Your task to perform on an android device: change your default location settings in chrome Image 0: 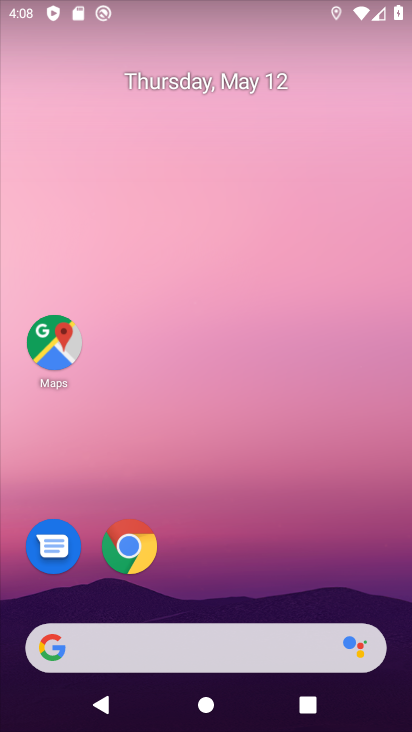
Step 0: drag from (280, 501) to (227, 0)
Your task to perform on an android device: change your default location settings in chrome Image 1: 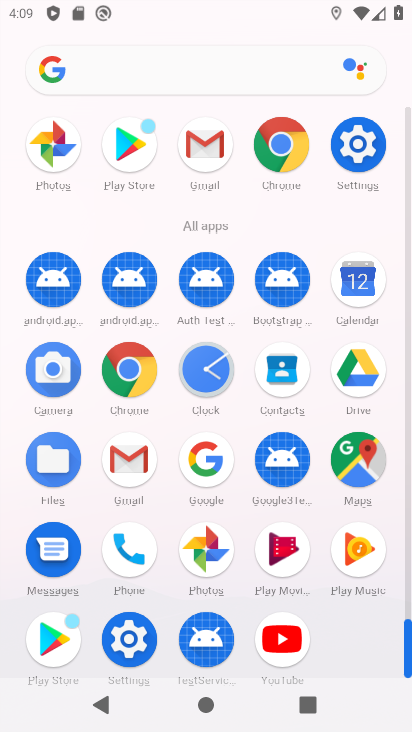
Step 1: click (280, 141)
Your task to perform on an android device: change your default location settings in chrome Image 2: 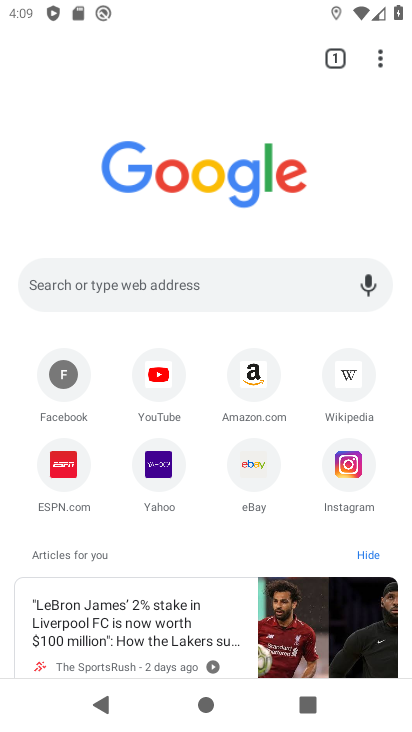
Step 2: drag from (378, 58) to (187, 482)
Your task to perform on an android device: change your default location settings in chrome Image 3: 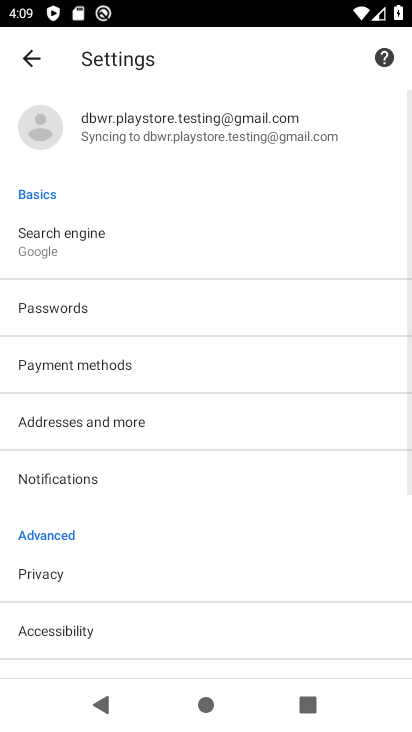
Step 3: drag from (183, 554) to (197, 167)
Your task to perform on an android device: change your default location settings in chrome Image 4: 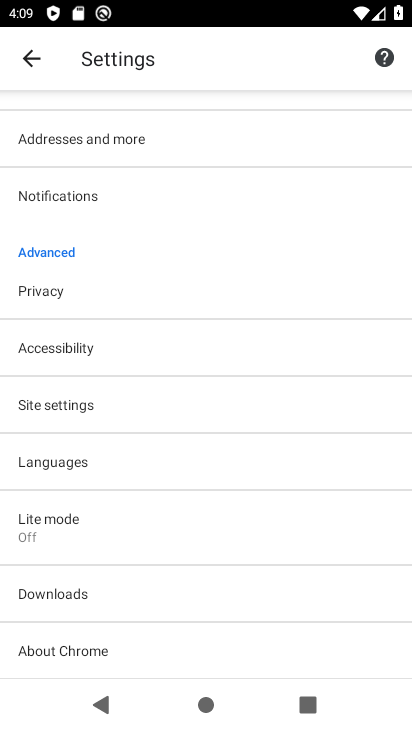
Step 4: click (87, 411)
Your task to perform on an android device: change your default location settings in chrome Image 5: 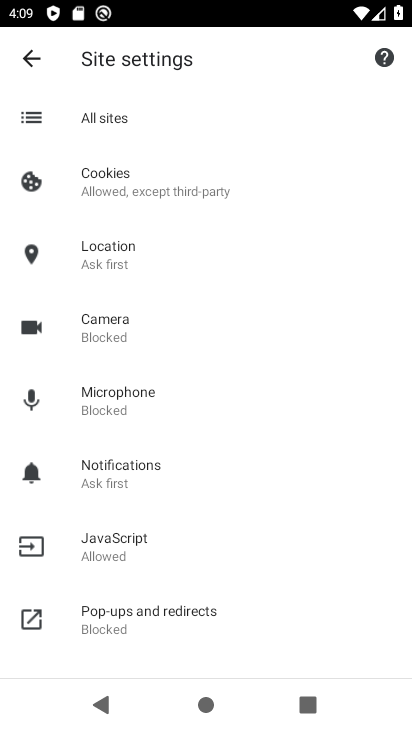
Step 5: click (134, 245)
Your task to perform on an android device: change your default location settings in chrome Image 6: 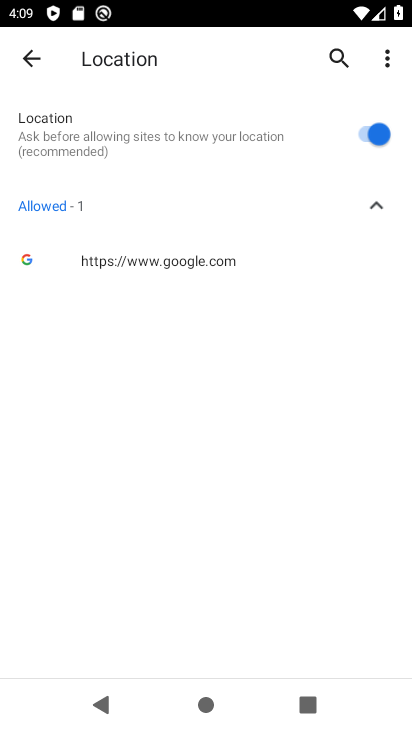
Step 6: task complete